Your task to perform on an android device: visit the assistant section in the google photos Image 0: 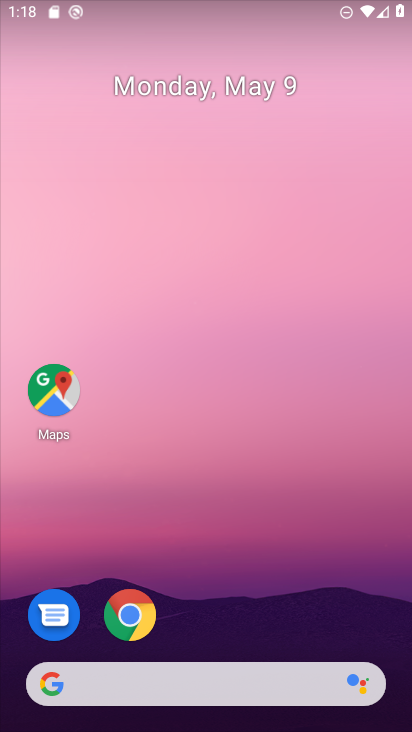
Step 0: drag from (234, 599) to (176, 53)
Your task to perform on an android device: visit the assistant section in the google photos Image 1: 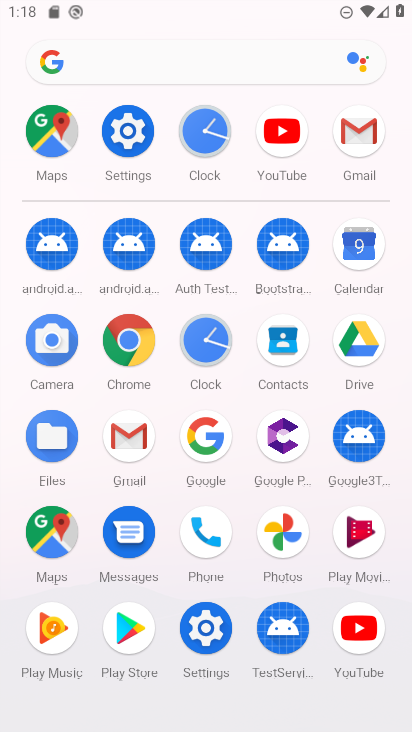
Step 1: click (279, 534)
Your task to perform on an android device: visit the assistant section in the google photos Image 2: 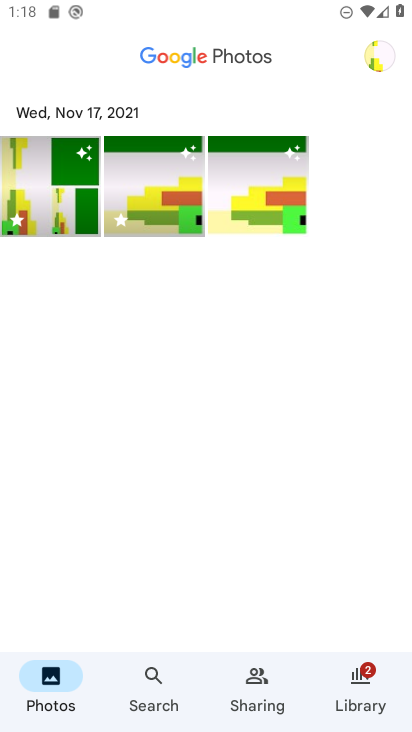
Step 2: click (364, 679)
Your task to perform on an android device: visit the assistant section in the google photos Image 3: 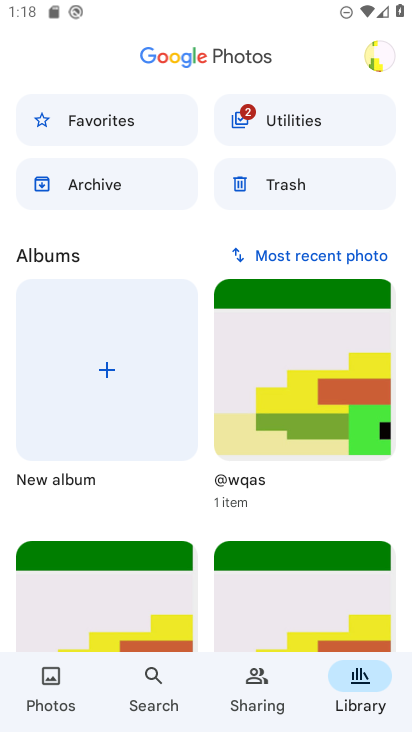
Step 3: click (314, 122)
Your task to perform on an android device: visit the assistant section in the google photos Image 4: 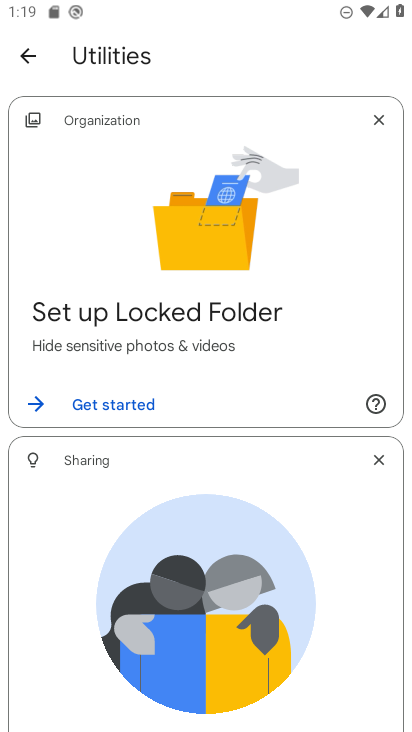
Step 4: drag from (199, 468) to (227, 343)
Your task to perform on an android device: visit the assistant section in the google photos Image 5: 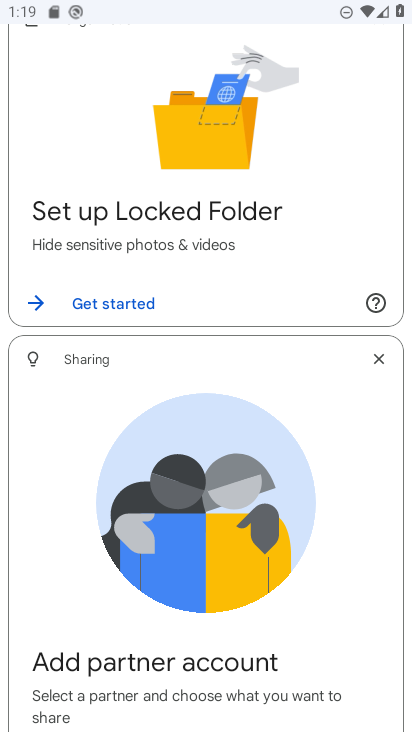
Step 5: drag from (323, 470) to (348, 305)
Your task to perform on an android device: visit the assistant section in the google photos Image 6: 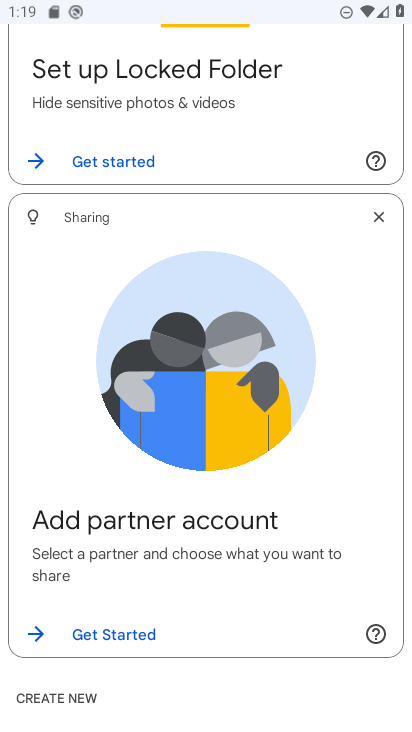
Step 6: drag from (307, 489) to (308, 266)
Your task to perform on an android device: visit the assistant section in the google photos Image 7: 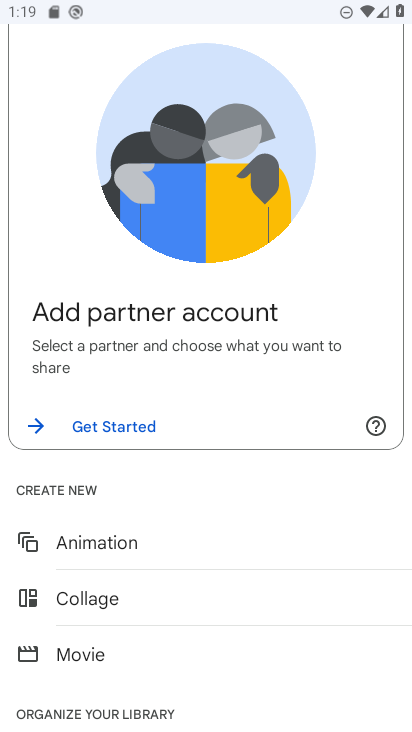
Step 7: drag from (235, 487) to (263, 326)
Your task to perform on an android device: visit the assistant section in the google photos Image 8: 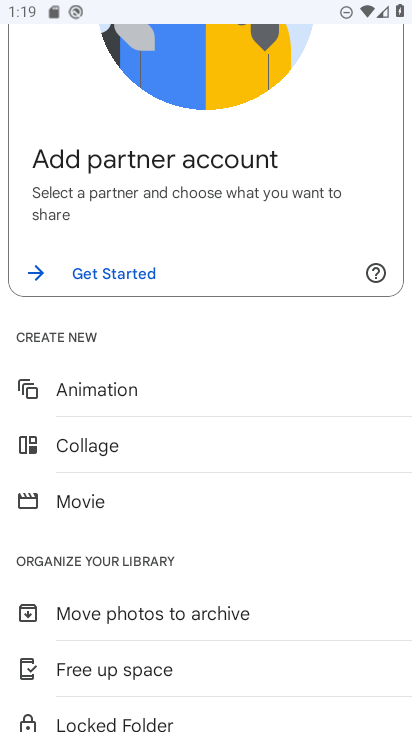
Step 8: drag from (213, 517) to (258, 342)
Your task to perform on an android device: visit the assistant section in the google photos Image 9: 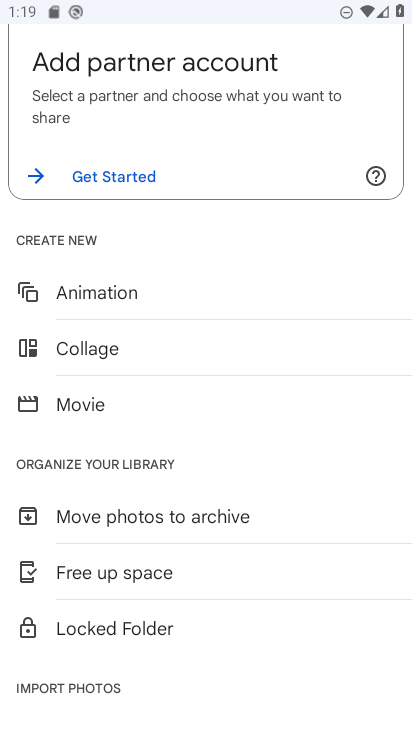
Step 9: drag from (245, 508) to (282, 363)
Your task to perform on an android device: visit the assistant section in the google photos Image 10: 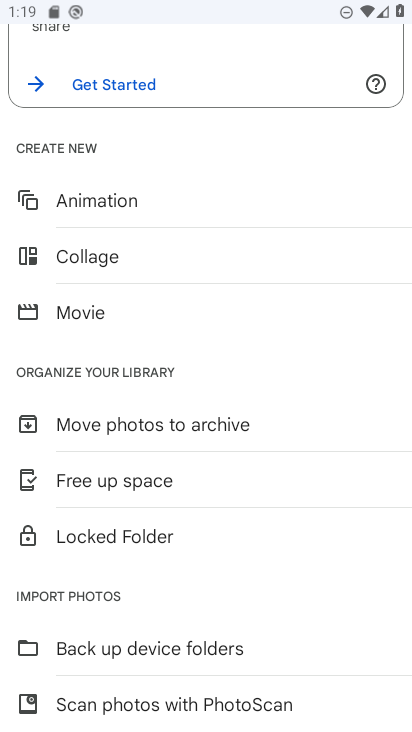
Step 10: drag from (248, 509) to (286, 394)
Your task to perform on an android device: visit the assistant section in the google photos Image 11: 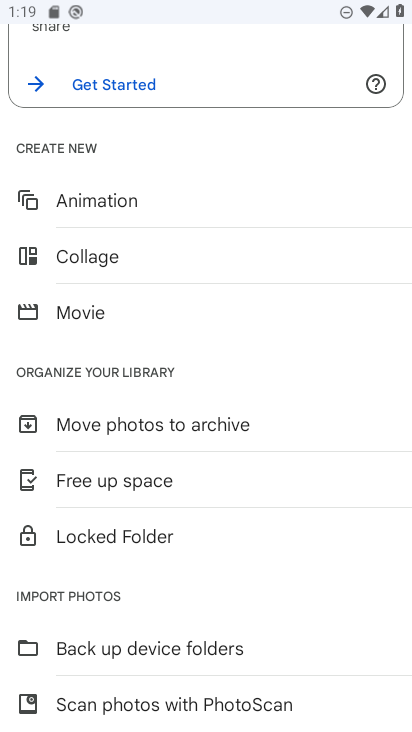
Step 11: drag from (220, 582) to (259, 376)
Your task to perform on an android device: visit the assistant section in the google photos Image 12: 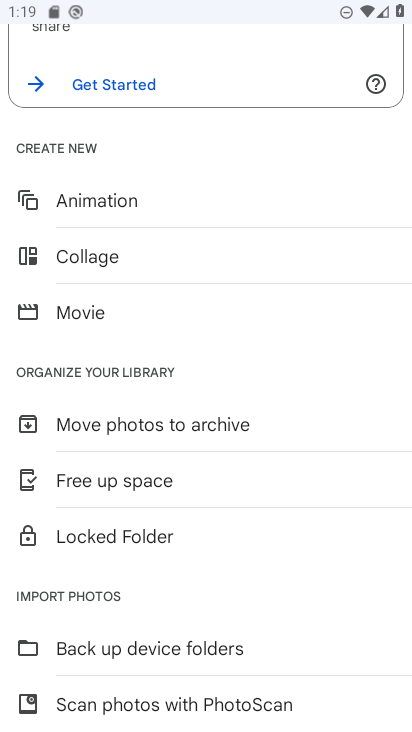
Step 12: drag from (180, 628) to (235, 397)
Your task to perform on an android device: visit the assistant section in the google photos Image 13: 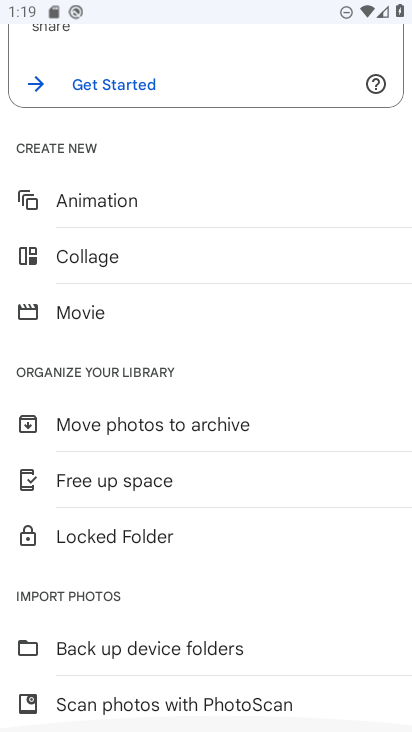
Step 13: drag from (248, 367) to (294, 536)
Your task to perform on an android device: visit the assistant section in the google photos Image 14: 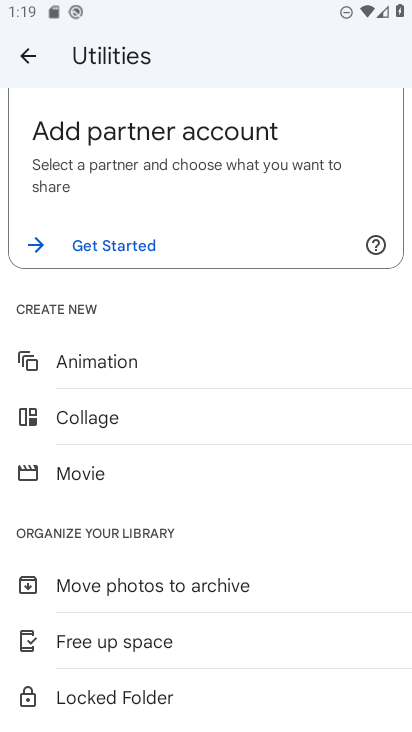
Step 14: drag from (214, 402) to (265, 563)
Your task to perform on an android device: visit the assistant section in the google photos Image 15: 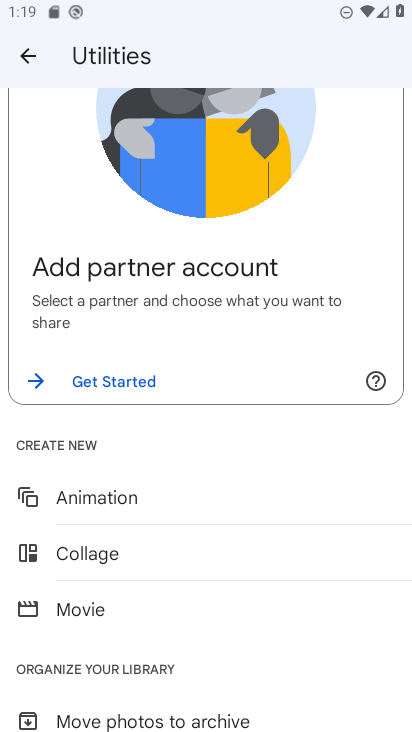
Step 15: drag from (235, 298) to (230, 507)
Your task to perform on an android device: visit the assistant section in the google photos Image 16: 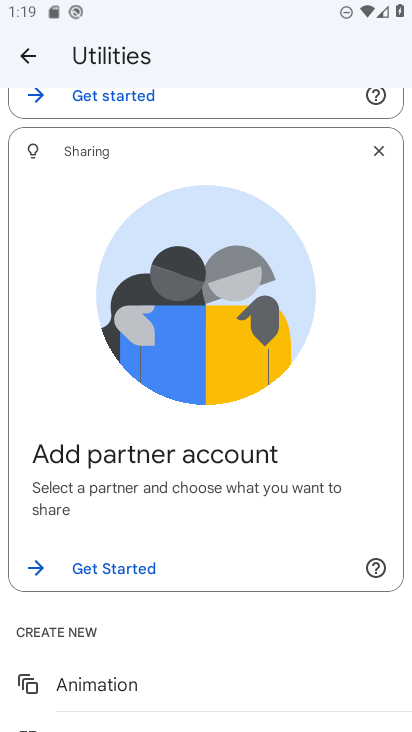
Step 16: drag from (234, 243) to (234, 556)
Your task to perform on an android device: visit the assistant section in the google photos Image 17: 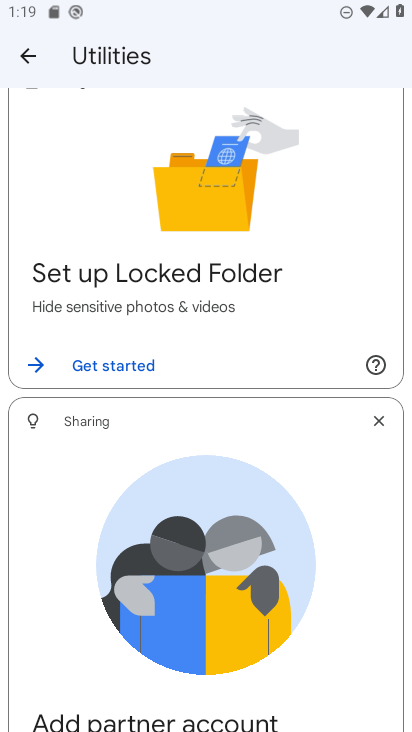
Step 17: drag from (264, 309) to (317, 532)
Your task to perform on an android device: visit the assistant section in the google photos Image 18: 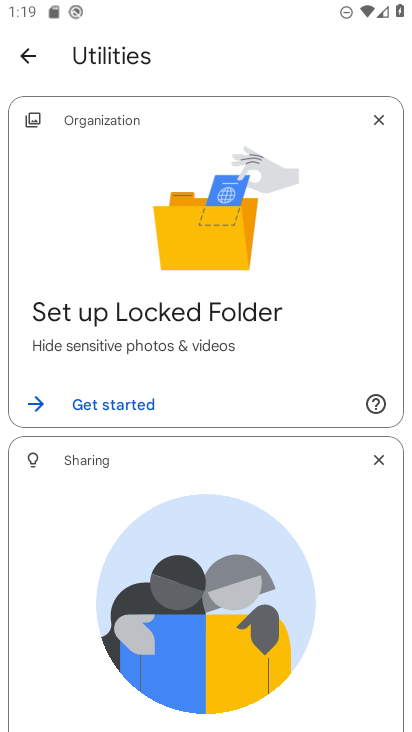
Step 18: press back button
Your task to perform on an android device: visit the assistant section in the google photos Image 19: 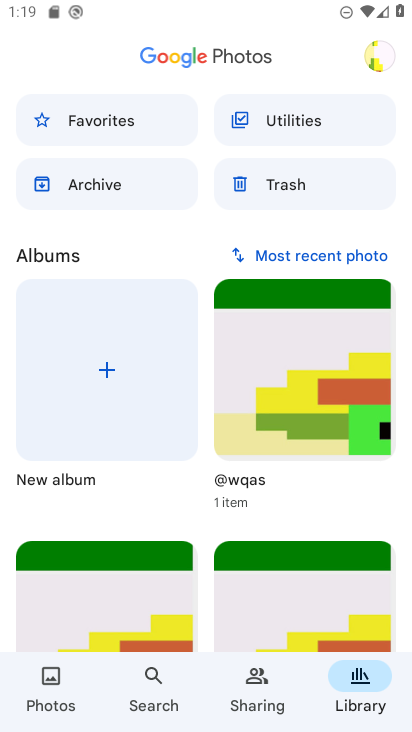
Step 19: click (382, 59)
Your task to perform on an android device: visit the assistant section in the google photos Image 20: 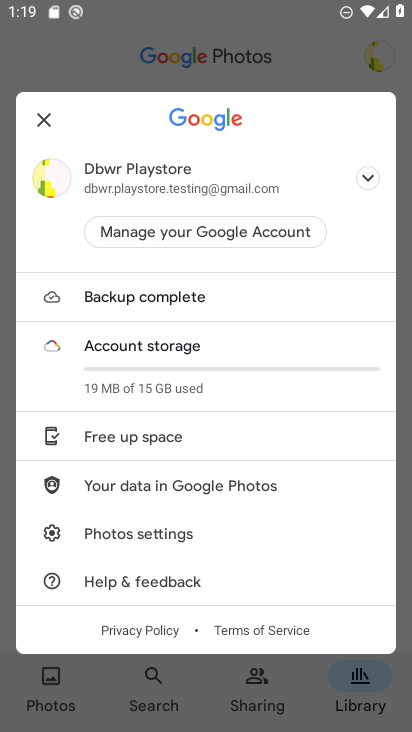
Step 20: drag from (198, 471) to (205, 325)
Your task to perform on an android device: visit the assistant section in the google photos Image 21: 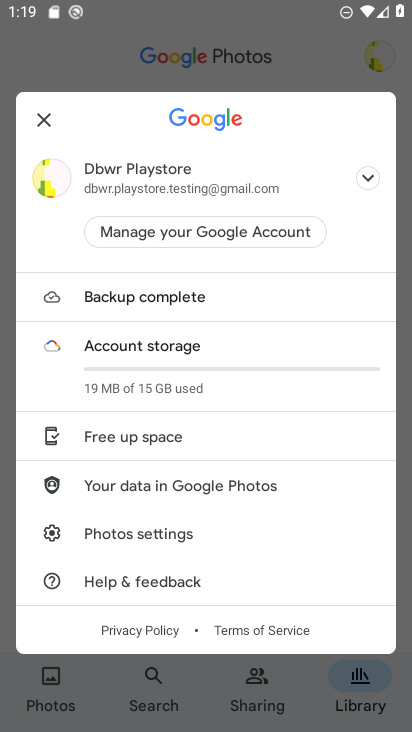
Step 21: click (143, 542)
Your task to perform on an android device: visit the assistant section in the google photos Image 22: 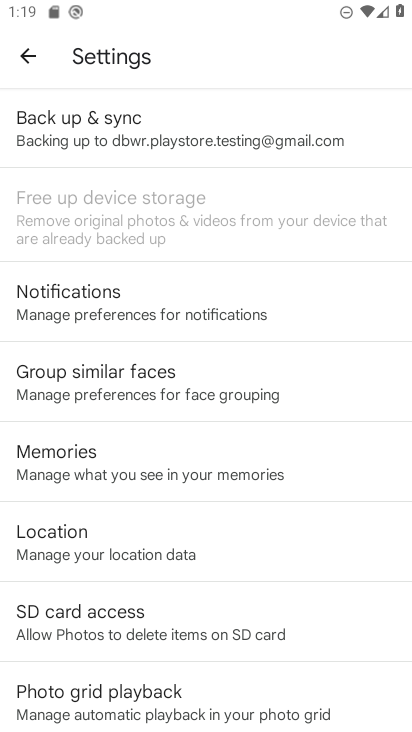
Step 22: task complete